Your task to perform on an android device: check android version Image 0: 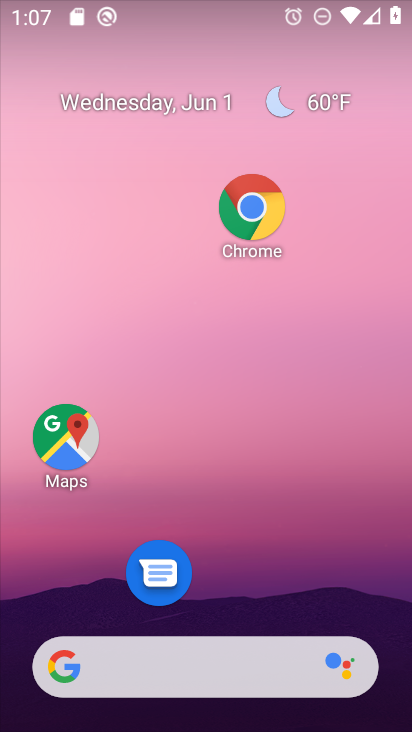
Step 0: drag from (236, 601) to (179, 208)
Your task to perform on an android device: check android version Image 1: 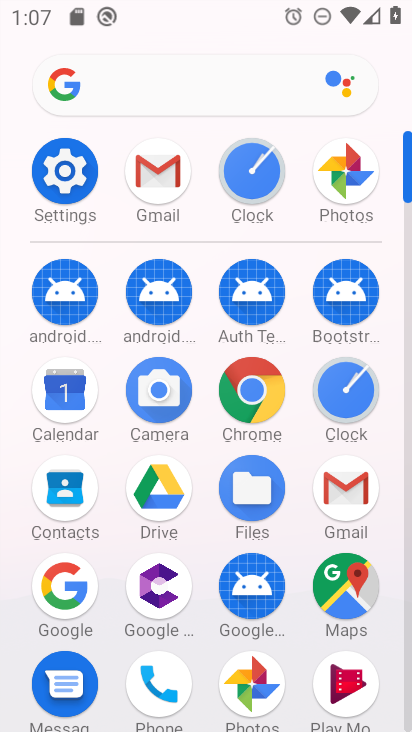
Step 1: click (81, 184)
Your task to perform on an android device: check android version Image 2: 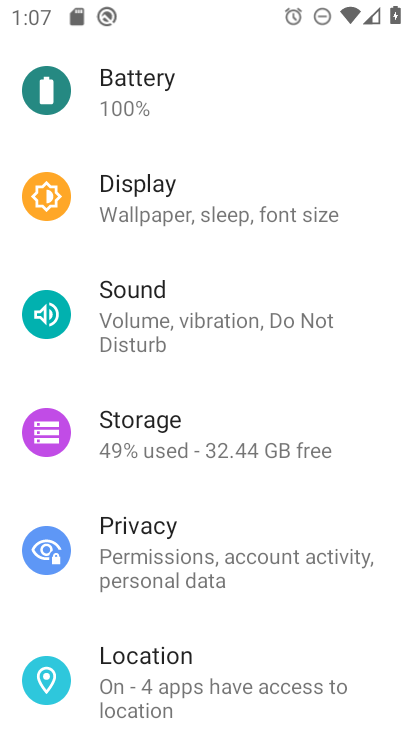
Step 2: drag from (209, 637) to (209, 272)
Your task to perform on an android device: check android version Image 3: 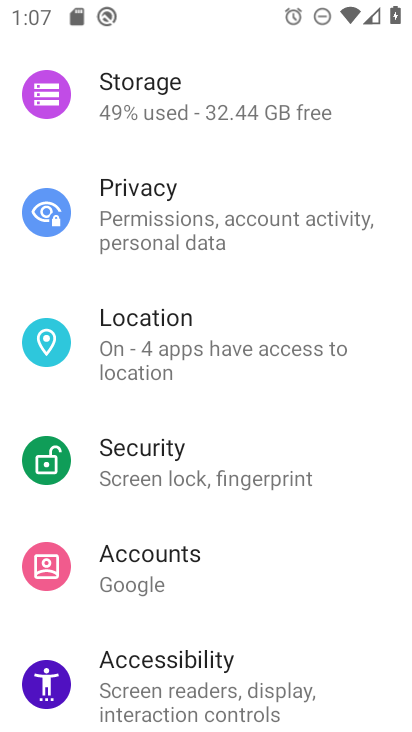
Step 3: drag from (206, 638) to (216, 313)
Your task to perform on an android device: check android version Image 4: 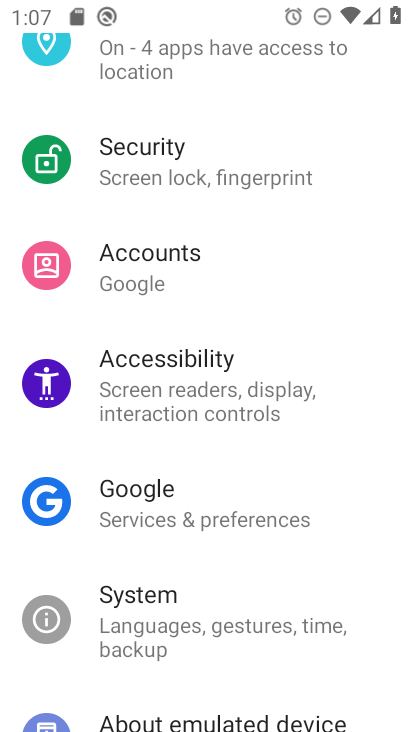
Step 4: drag from (216, 694) to (218, 307)
Your task to perform on an android device: check android version Image 5: 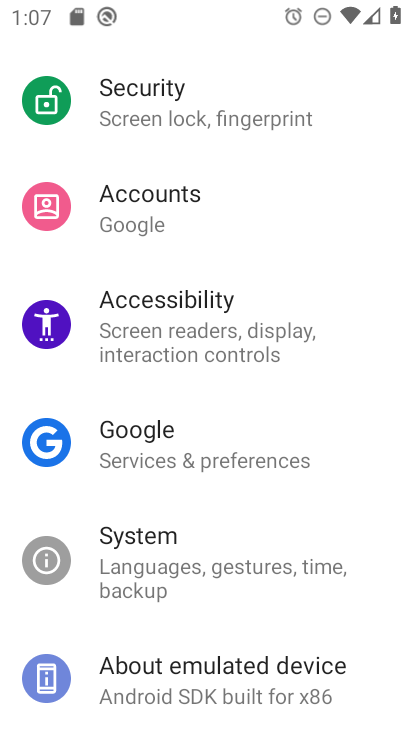
Step 5: drag from (227, 496) to (232, 356)
Your task to perform on an android device: check android version Image 6: 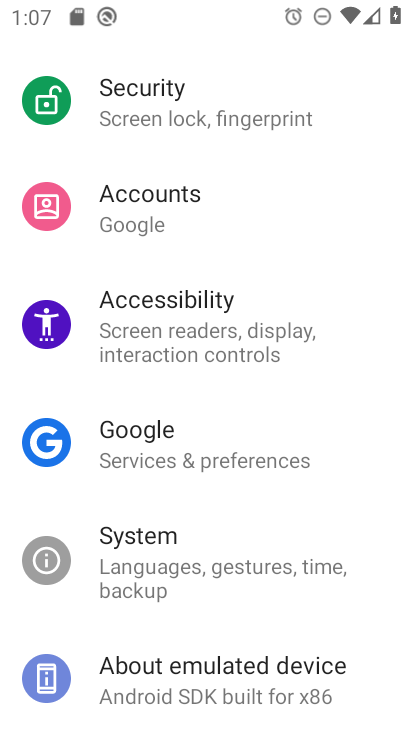
Step 6: click (234, 700)
Your task to perform on an android device: check android version Image 7: 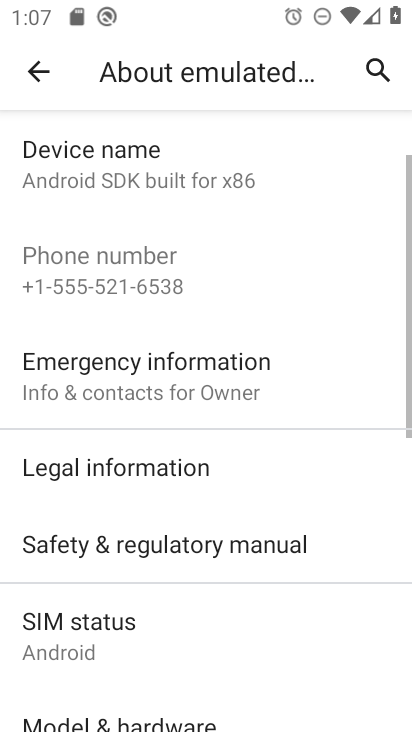
Step 7: drag from (234, 584) to (239, 202)
Your task to perform on an android device: check android version Image 8: 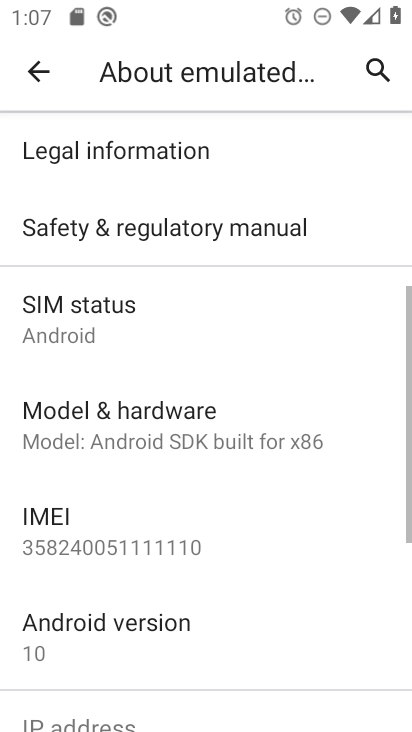
Step 8: drag from (180, 507) to (205, 276)
Your task to perform on an android device: check android version Image 9: 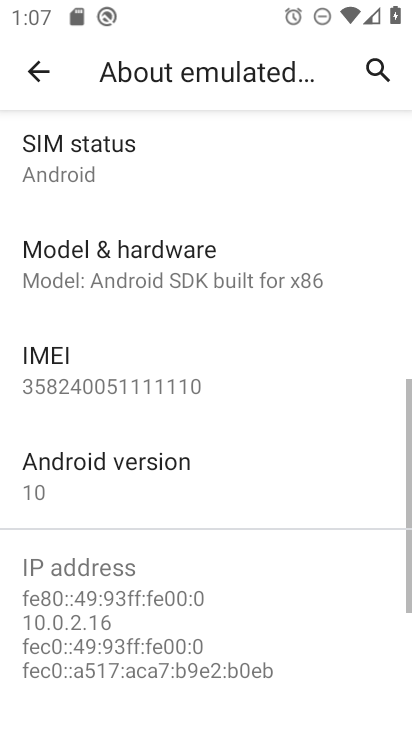
Step 9: click (180, 461)
Your task to perform on an android device: check android version Image 10: 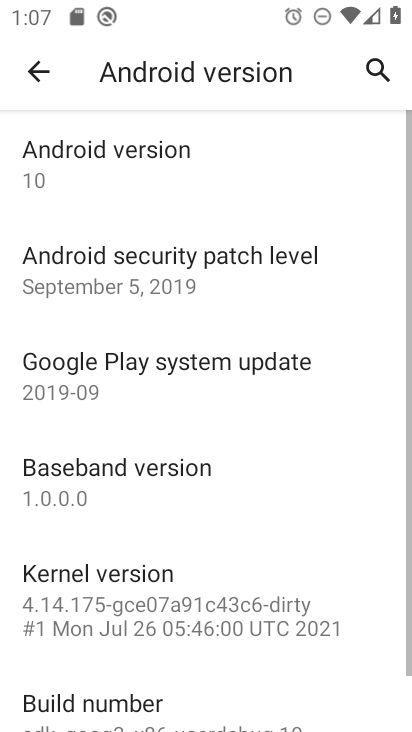
Step 10: click (222, 165)
Your task to perform on an android device: check android version Image 11: 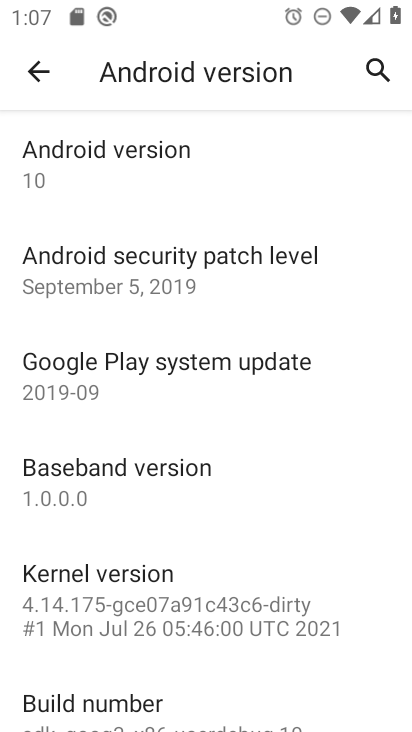
Step 11: task complete